Your task to perform on an android device: Is it going to rain this weekend? Image 0: 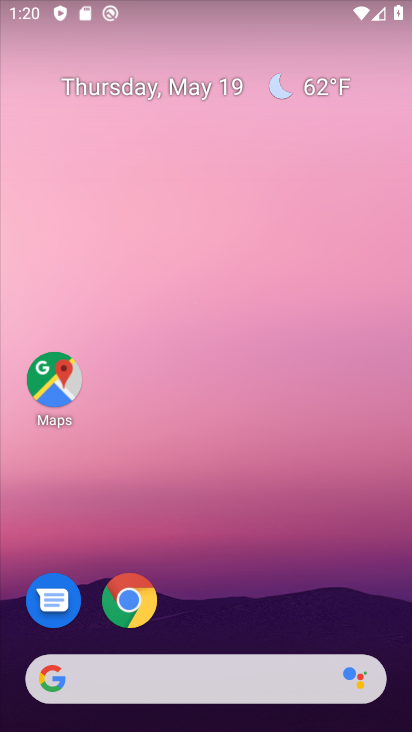
Step 0: drag from (264, 645) to (225, 521)
Your task to perform on an android device: Is it going to rain this weekend? Image 1: 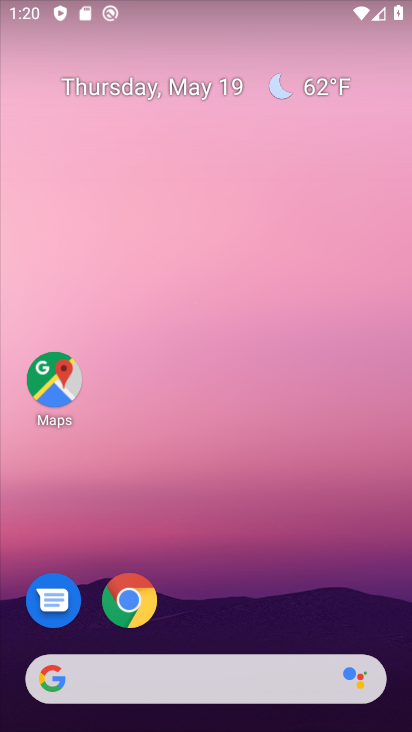
Step 1: click (336, 89)
Your task to perform on an android device: Is it going to rain this weekend? Image 2: 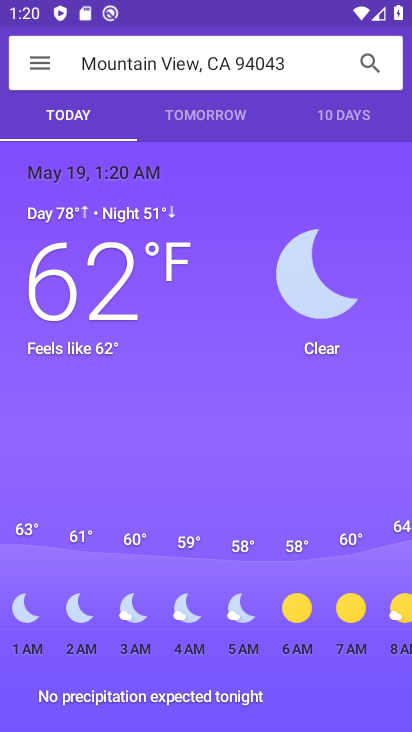
Step 2: click (320, 121)
Your task to perform on an android device: Is it going to rain this weekend? Image 3: 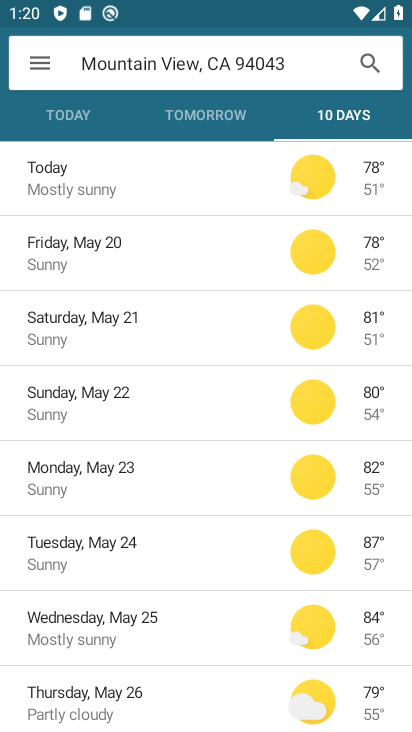
Step 3: task complete